Your task to perform on an android device: Is it going to rain this weekend? Image 0: 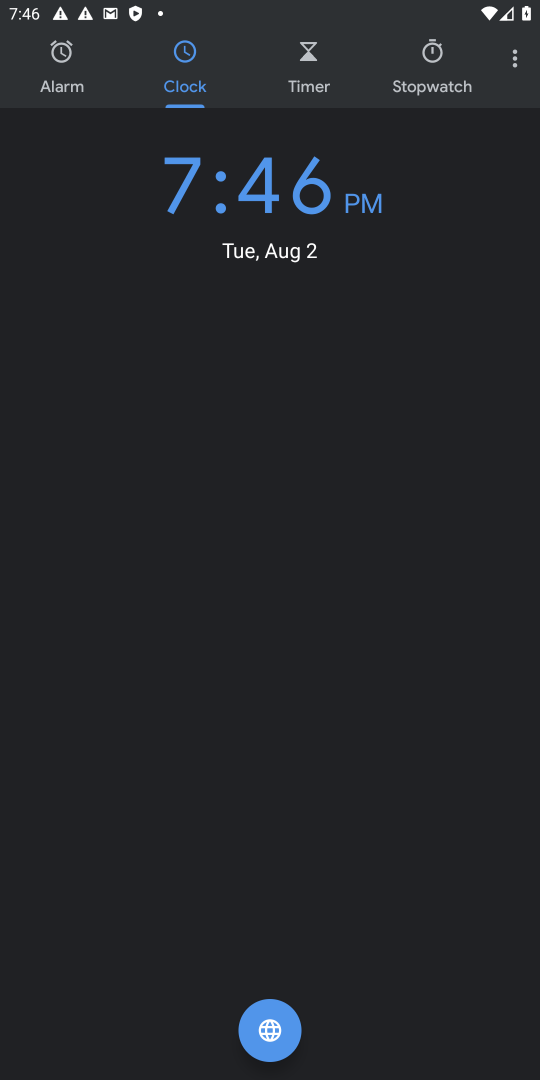
Step 0: press home button
Your task to perform on an android device: Is it going to rain this weekend? Image 1: 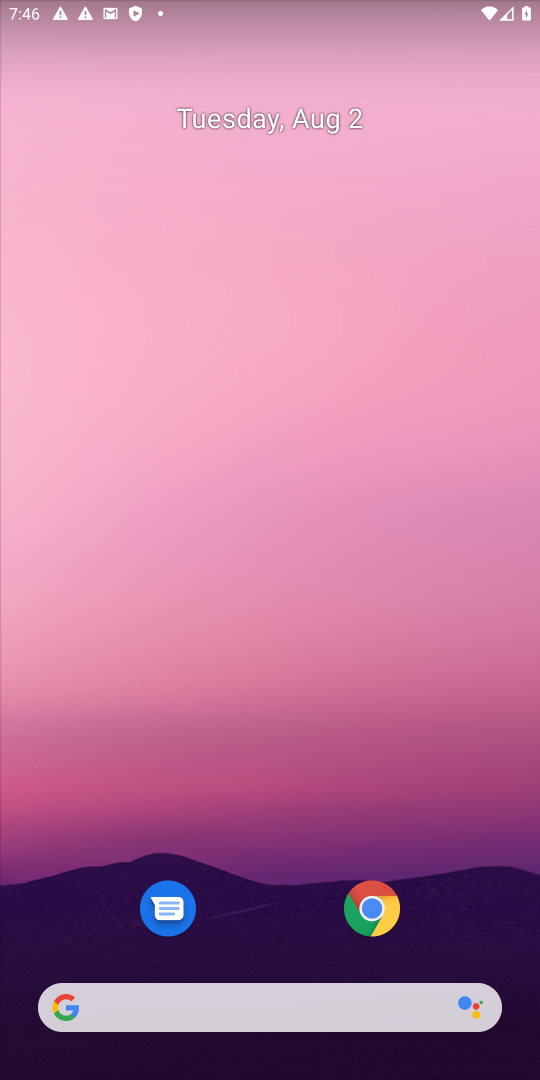
Step 1: click (290, 1017)
Your task to perform on an android device: Is it going to rain this weekend? Image 2: 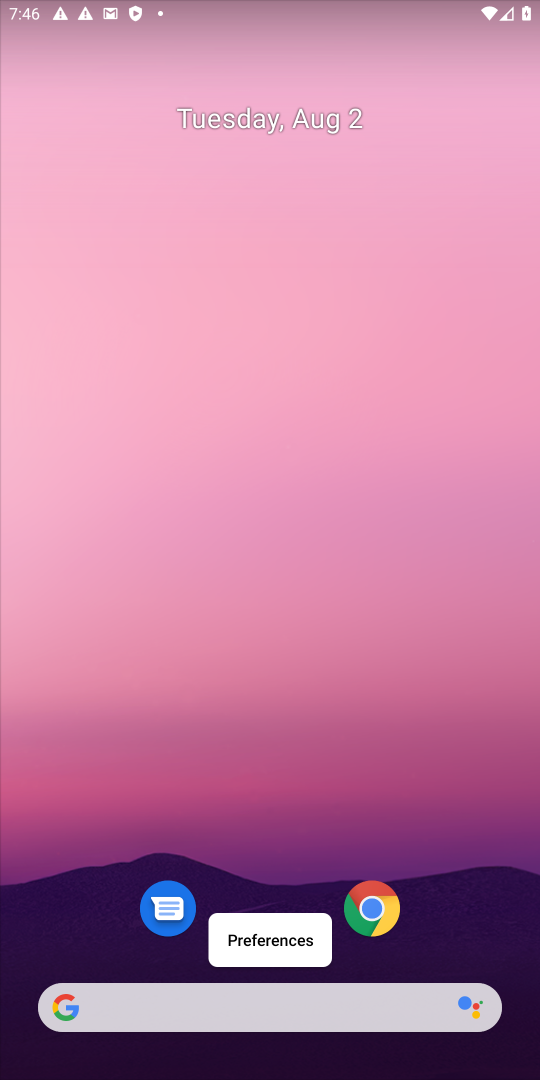
Step 2: click (122, 1001)
Your task to perform on an android device: Is it going to rain this weekend? Image 3: 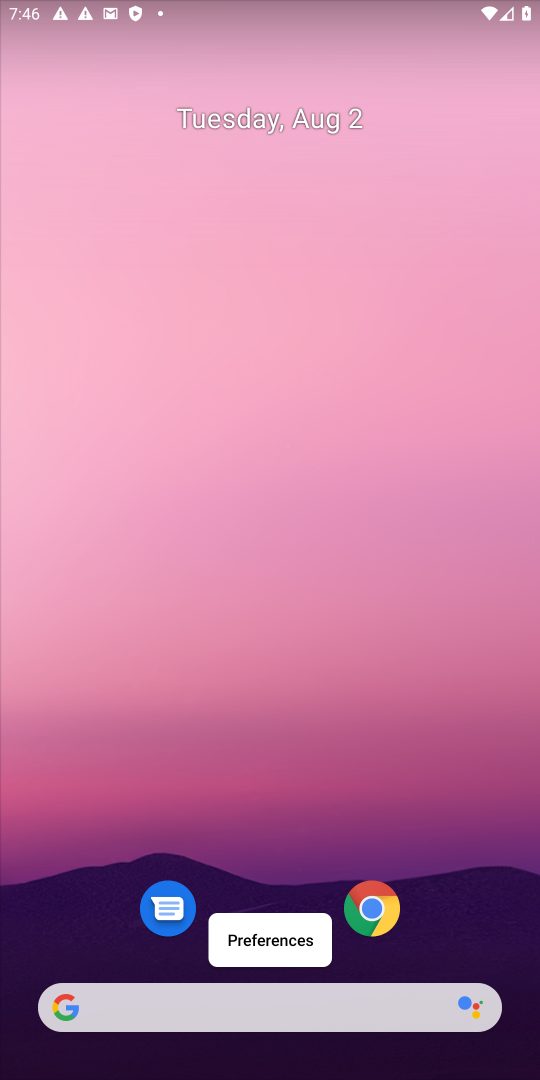
Step 3: click (383, 1002)
Your task to perform on an android device: Is it going to rain this weekend? Image 4: 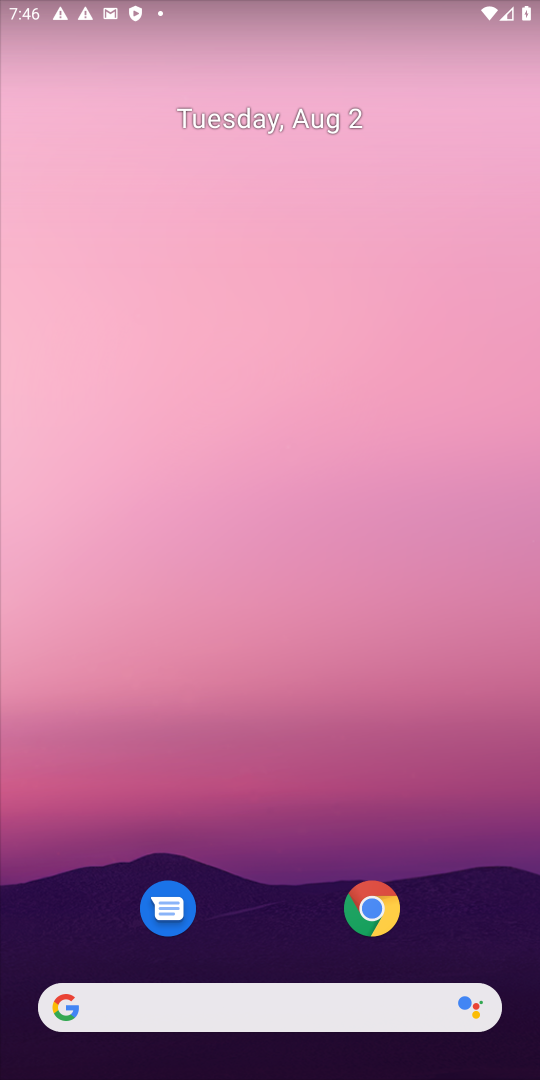
Step 4: drag from (383, 1002) to (441, 11)
Your task to perform on an android device: Is it going to rain this weekend? Image 5: 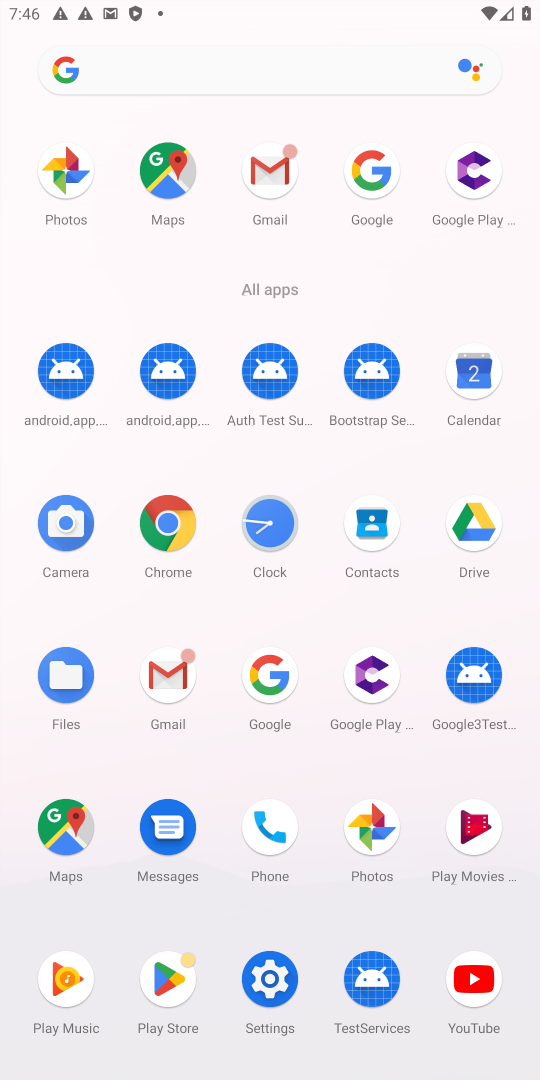
Step 5: click (331, 65)
Your task to perform on an android device: Is it going to rain this weekend? Image 6: 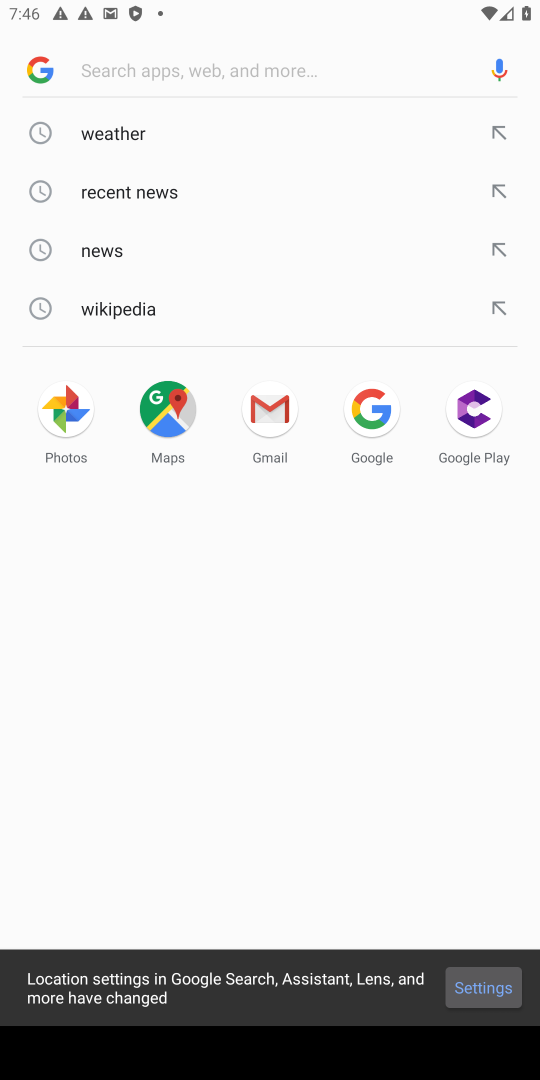
Step 6: type "Is it going to rain this weekend?"
Your task to perform on an android device: Is it going to rain this weekend? Image 7: 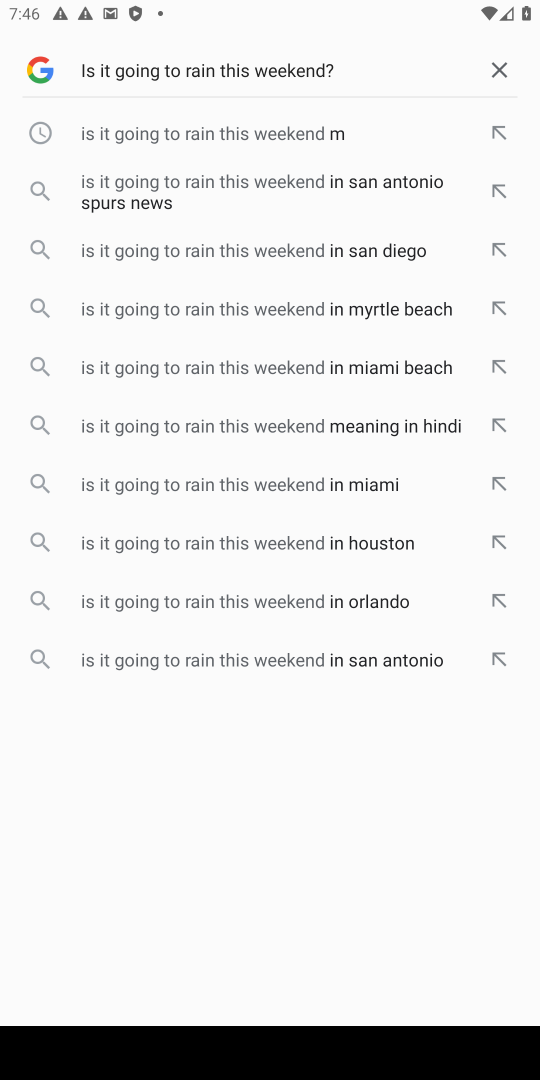
Step 7: press enter
Your task to perform on an android device: Is it going to rain this weekend? Image 8: 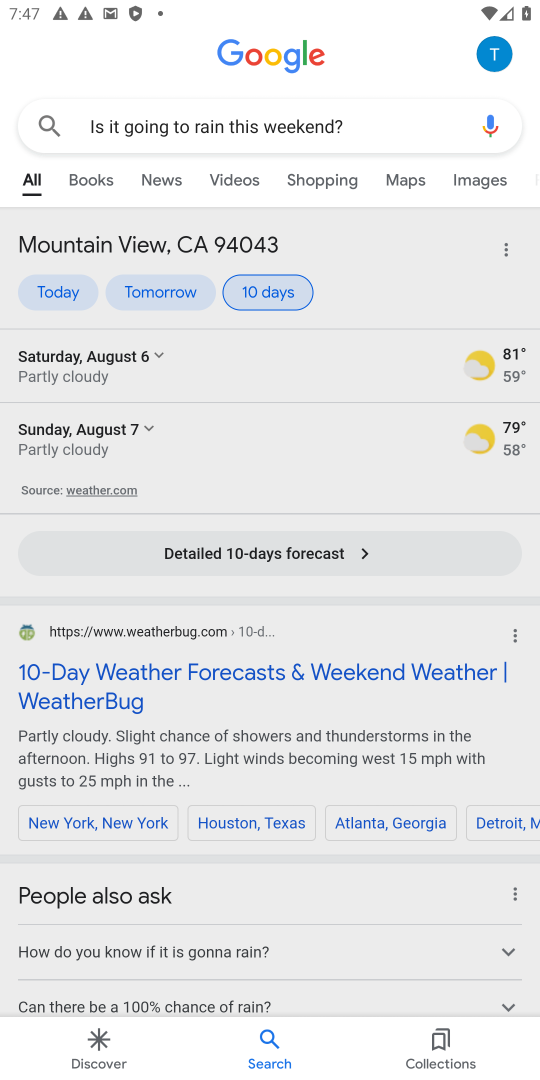
Step 8: task complete